Your task to perform on an android device: open app "Chime – Mobile Banking" Image 0: 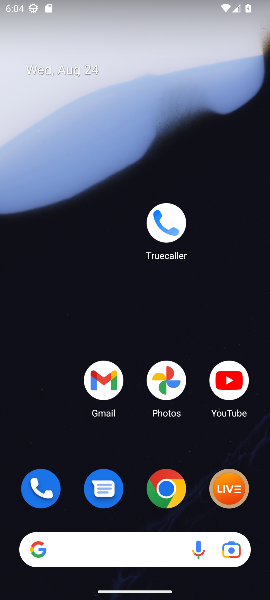
Step 0: drag from (108, 137) to (108, 64)
Your task to perform on an android device: open app "Chime – Mobile Banking" Image 1: 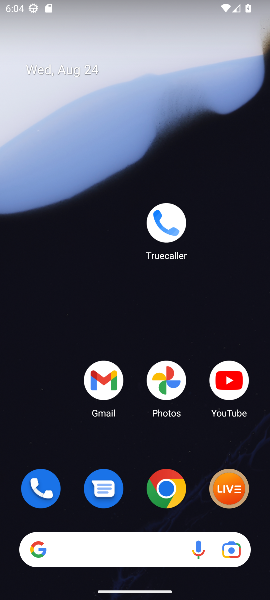
Step 1: task complete